Your task to perform on an android device: Go to privacy settings Image 0: 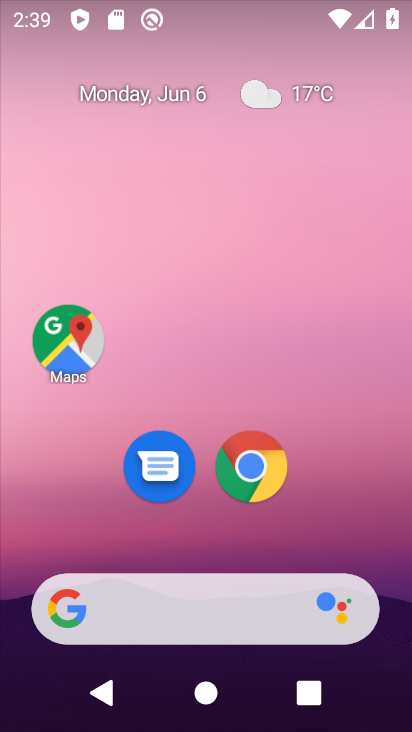
Step 0: drag from (322, 430) to (234, 15)
Your task to perform on an android device: Go to privacy settings Image 1: 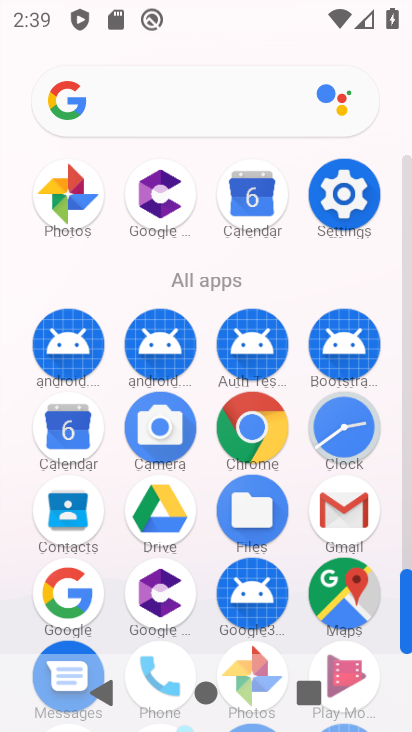
Step 1: click (347, 199)
Your task to perform on an android device: Go to privacy settings Image 2: 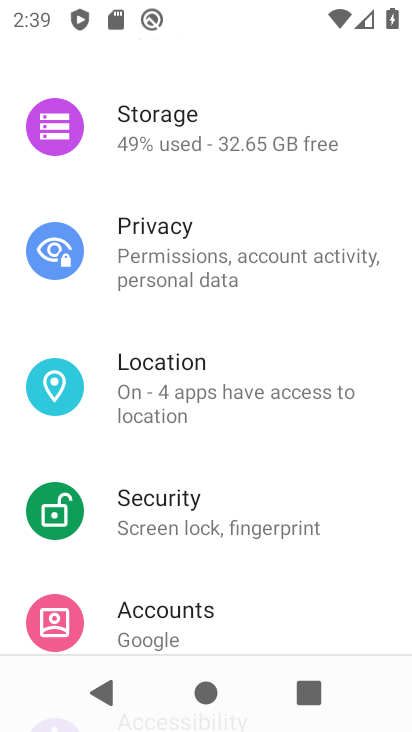
Step 2: click (174, 258)
Your task to perform on an android device: Go to privacy settings Image 3: 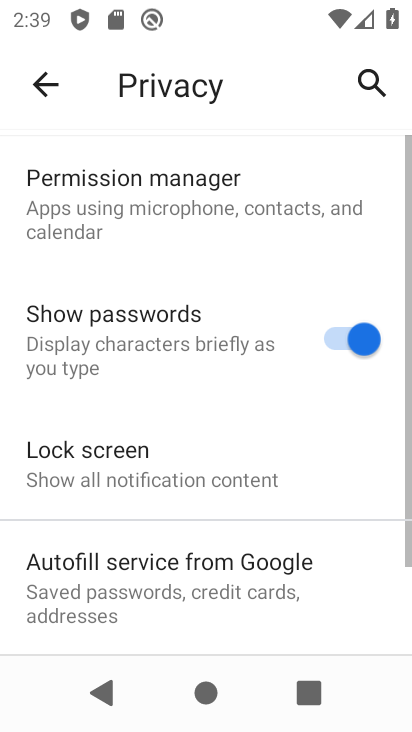
Step 3: task complete